Your task to perform on an android device: Open battery settings Image 0: 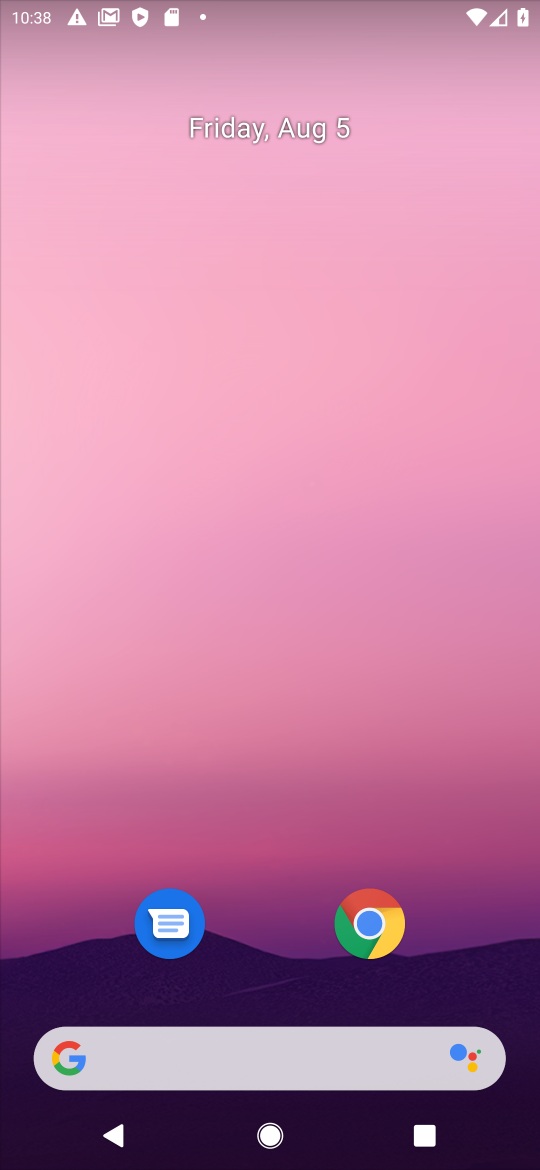
Step 0: press home button
Your task to perform on an android device: Open battery settings Image 1: 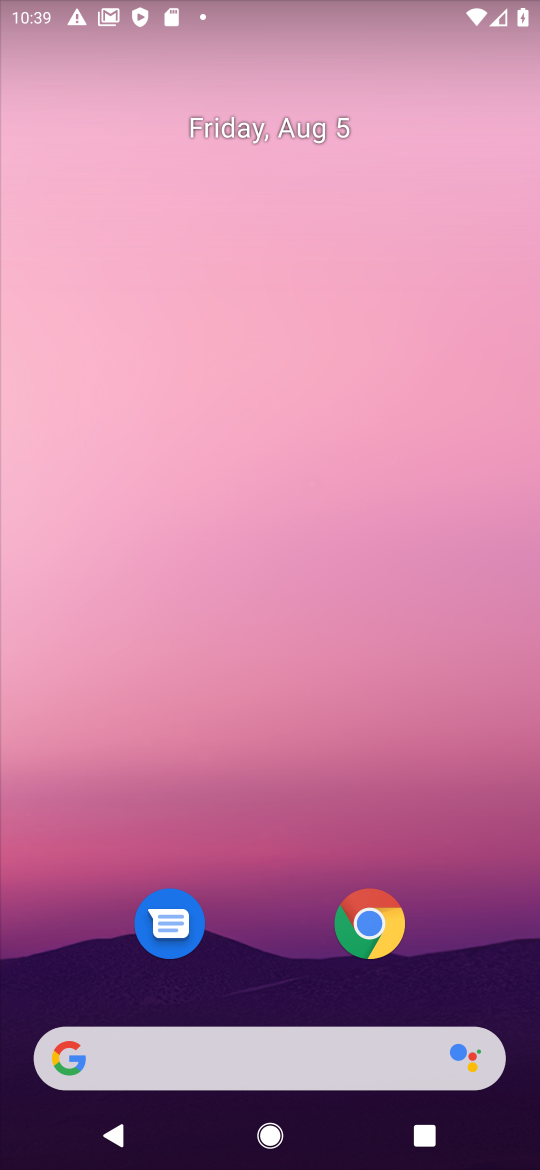
Step 1: drag from (226, 1089) to (294, 251)
Your task to perform on an android device: Open battery settings Image 2: 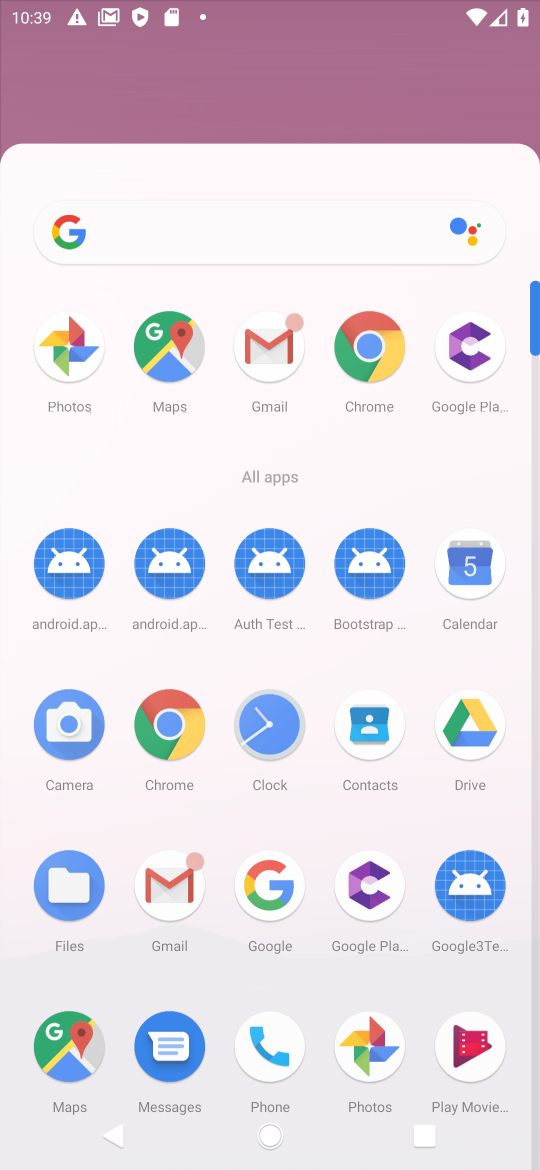
Step 2: click (294, 251)
Your task to perform on an android device: Open battery settings Image 3: 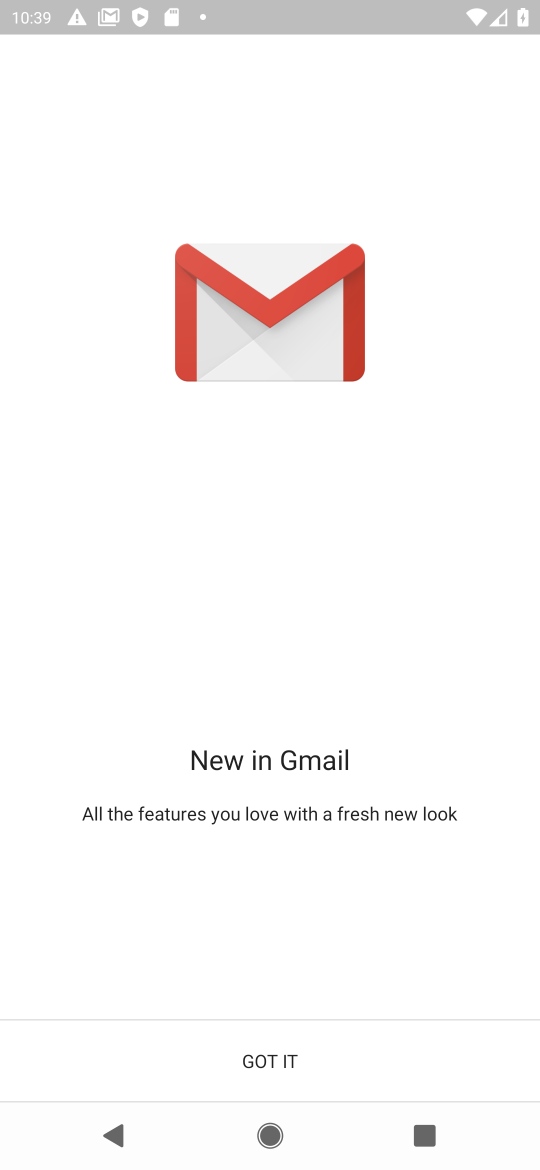
Step 3: press home button
Your task to perform on an android device: Open battery settings Image 4: 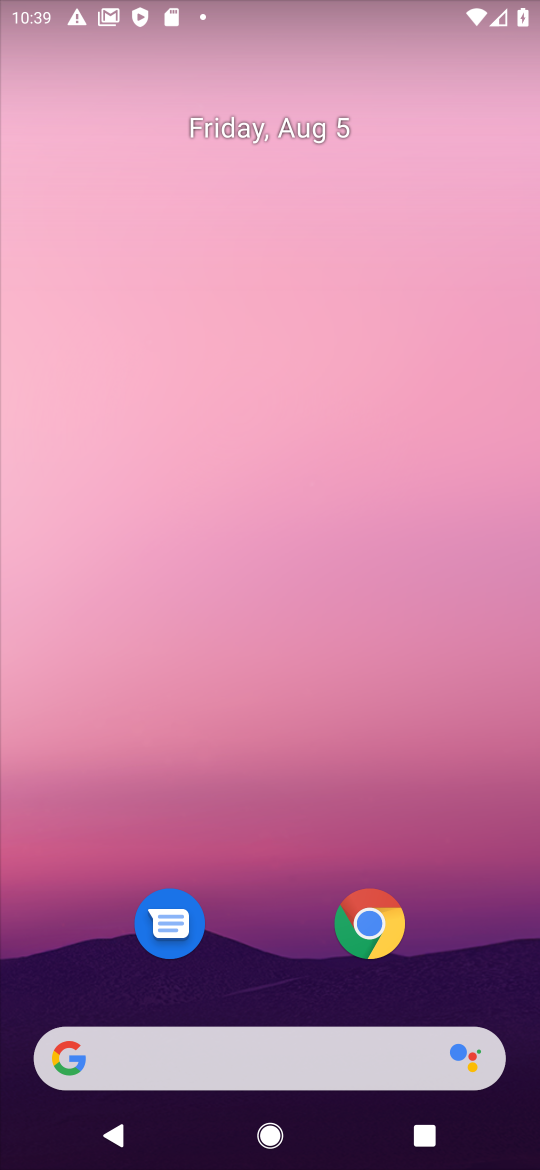
Step 4: click (399, 598)
Your task to perform on an android device: Open battery settings Image 5: 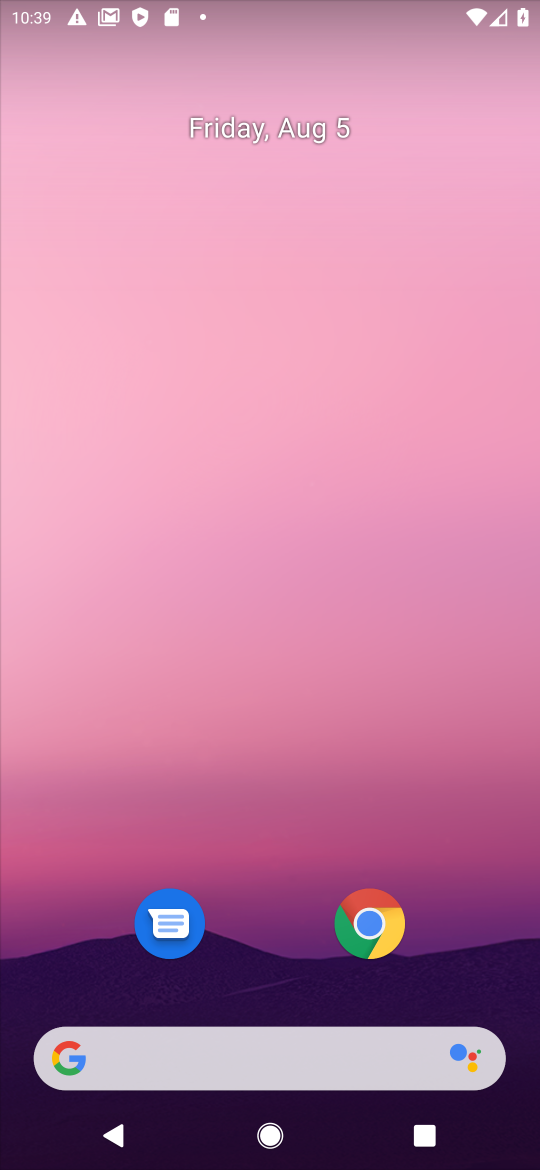
Step 5: drag from (255, 1066) to (247, 131)
Your task to perform on an android device: Open battery settings Image 6: 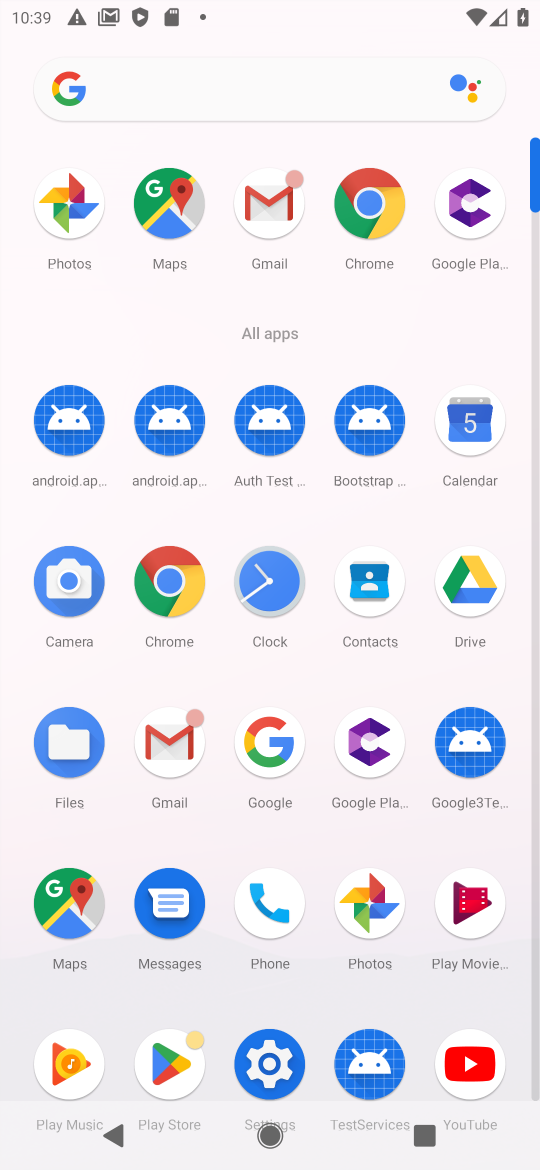
Step 6: click (265, 1046)
Your task to perform on an android device: Open battery settings Image 7: 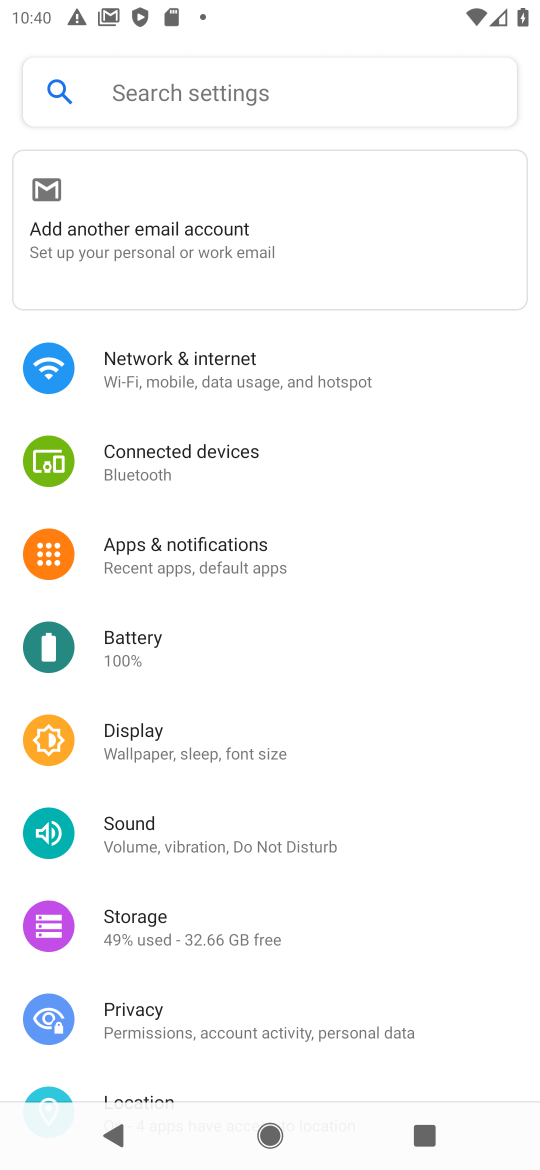
Step 7: click (145, 663)
Your task to perform on an android device: Open battery settings Image 8: 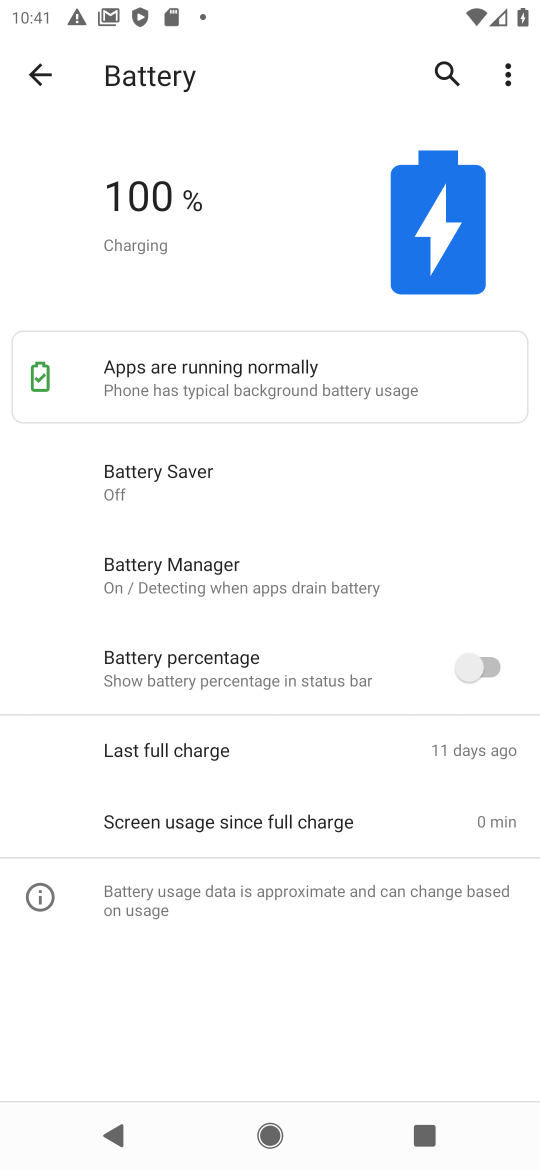
Step 8: task complete